Your task to perform on an android device: Do I have any events this weekend? Image 0: 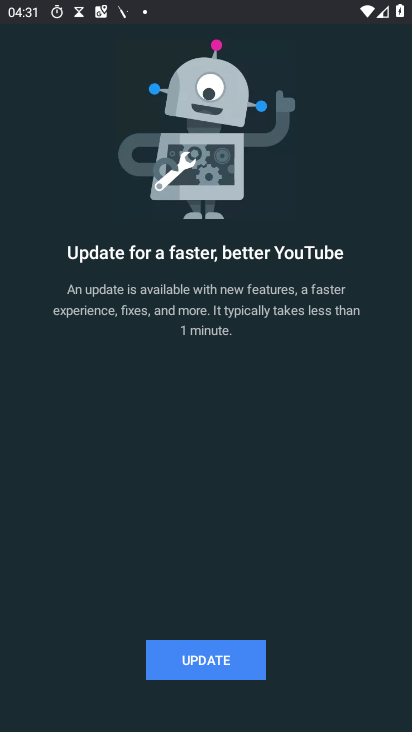
Step 0: task complete